Your task to perform on an android device: toggle translation in the chrome app Image 0: 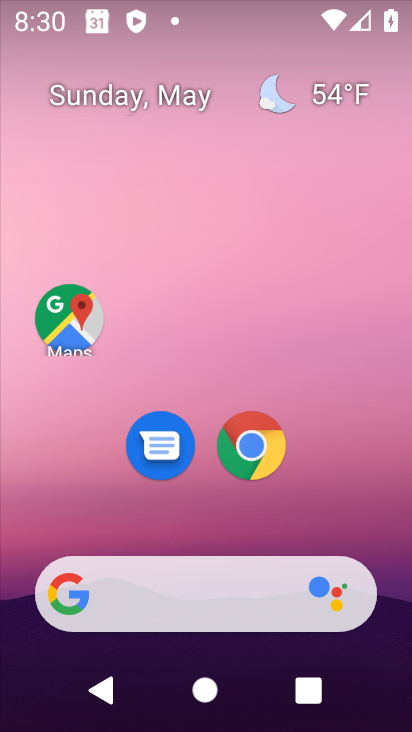
Step 0: drag from (396, 530) to (340, 162)
Your task to perform on an android device: toggle translation in the chrome app Image 1: 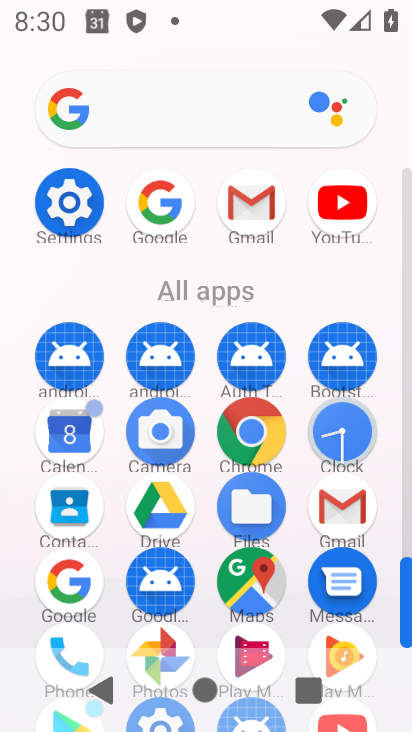
Step 1: click (260, 438)
Your task to perform on an android device: toggle translation in the chrome app Image 2: 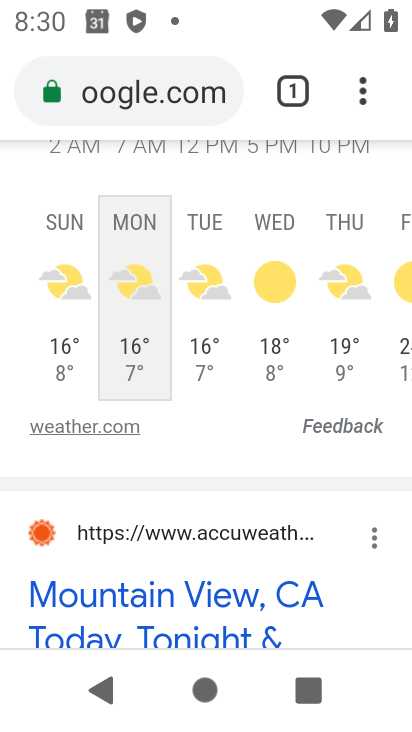
Step 2: click (368, 113)
Your task to perform on an android device: toggle translation in the chrome app Image 3: 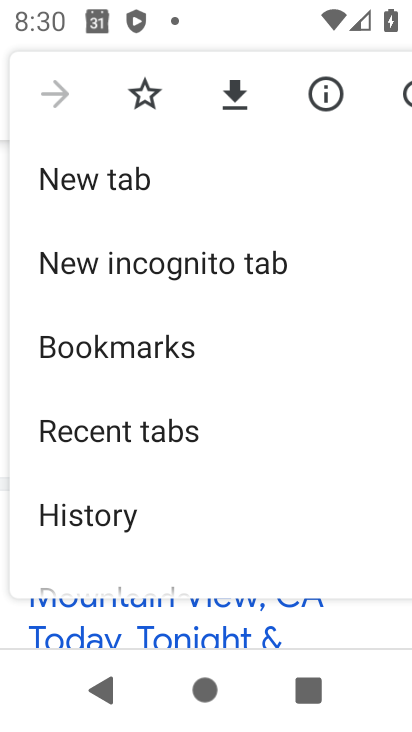
Step 3: drag from (241, 531) to (244, 104)
Your task to perform on an android device: toggle translation in the chrome app Image 4: 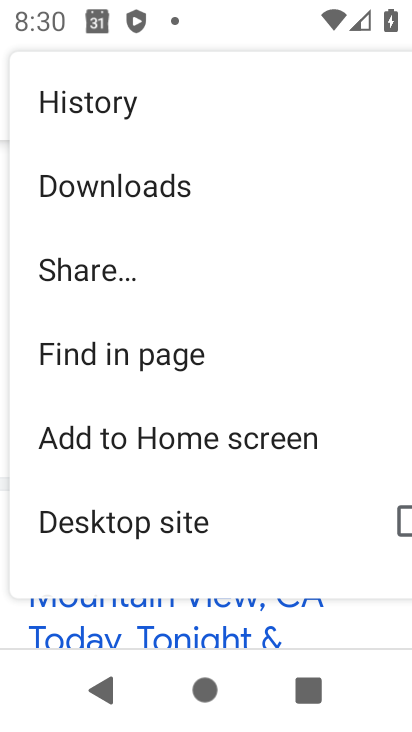
Step 4: drag from (343, 565) to (346, 150)
Your task to perform on an android device: toggle translation in the chrome app Image 5: 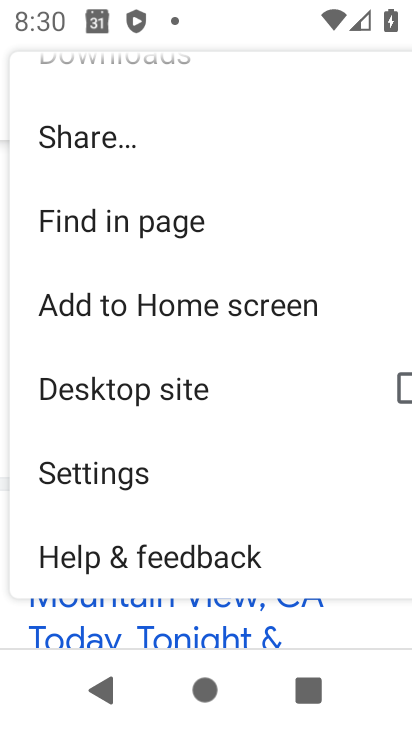
Step 5: click (255, 476)
Your task to perform on an android device: toggle translation in the chrome app Image 6: 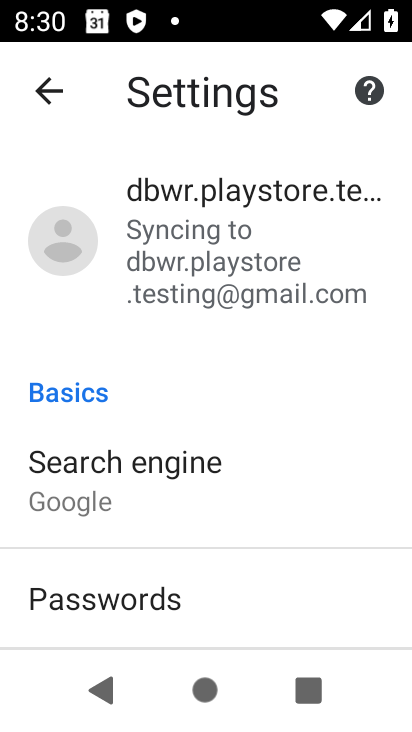
Step 6: drag from (269, 622) to (245, 322)
Your task to perform on an android device: toggle translation in the chrome app Image 7: 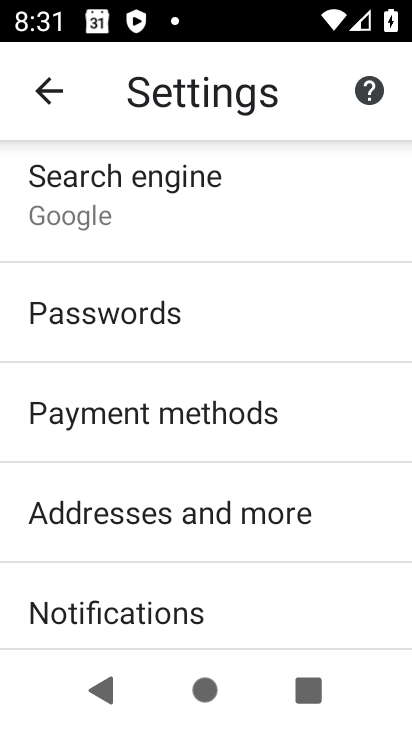
Step 7: drag from (299, 576) to (298, 316)
Your task to perform on an android device: toggle translation in the chrome app Image 8: 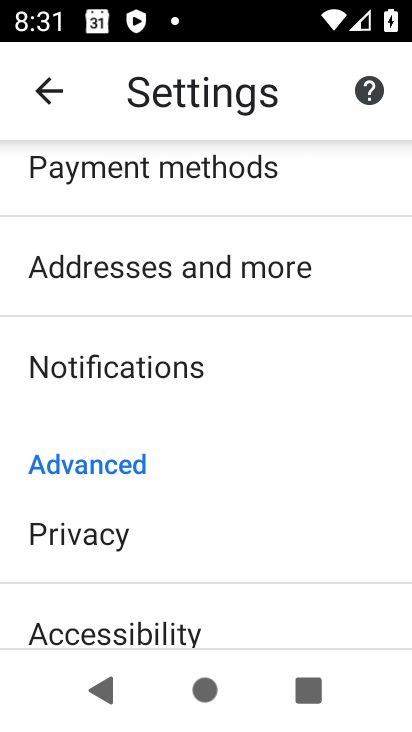
Step 8: drag from (324, 597) to (296, 287)
Your task to perform on an android device: toggle translation in the chrome app Image 9: 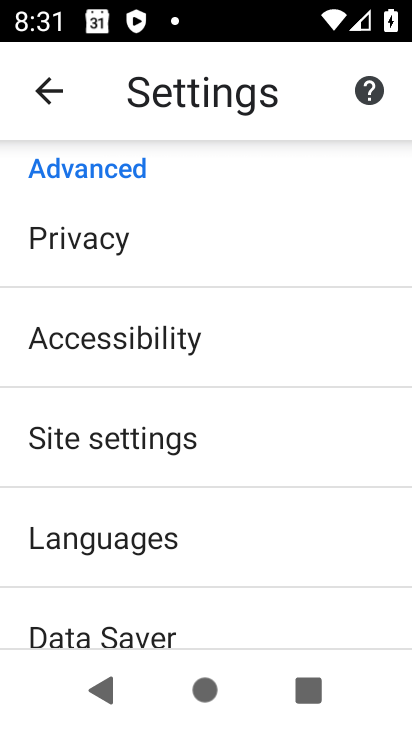
Step 9: click (199, 535)
Your task to perform on an android device: toggle translation in the chrome app Image 10: 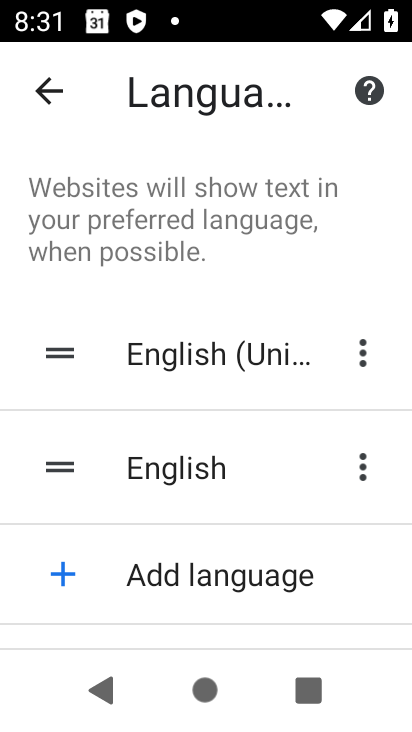
Step 10: drag from (257, 551) to (270, 229)
Your task to perform on an android device: toggle translation in the chrome app Image 11: 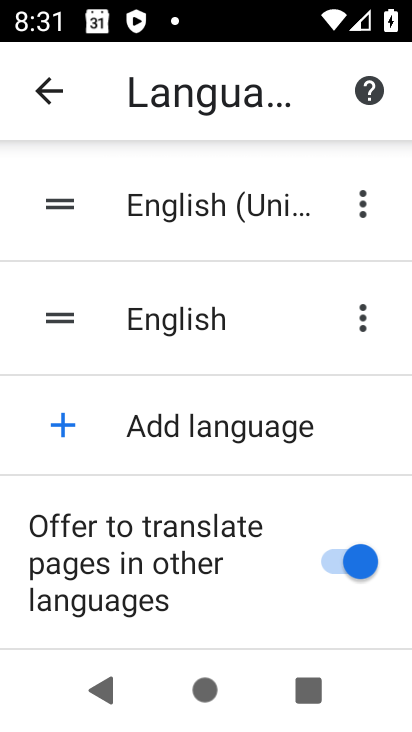
Step 11: click (337, 564)
Your task to perform on an android device: toggle translation in the chrome app Image 12: 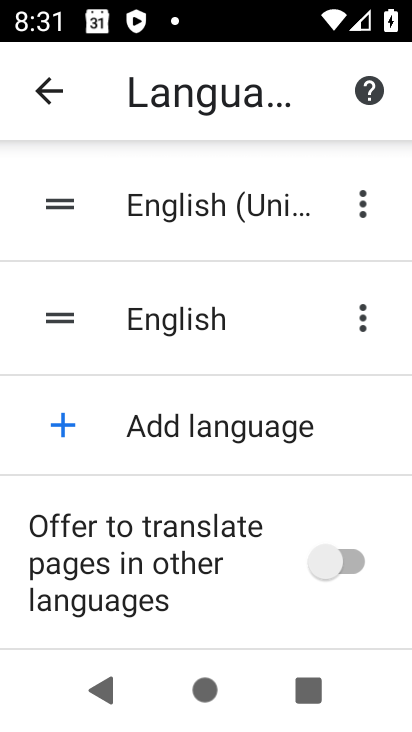
Step 12: task complete